Your task to perform on an android device: Clear the cart on costco. Search for "usb-a" on costco, select the first entry, and add it to the cart. Image 0: 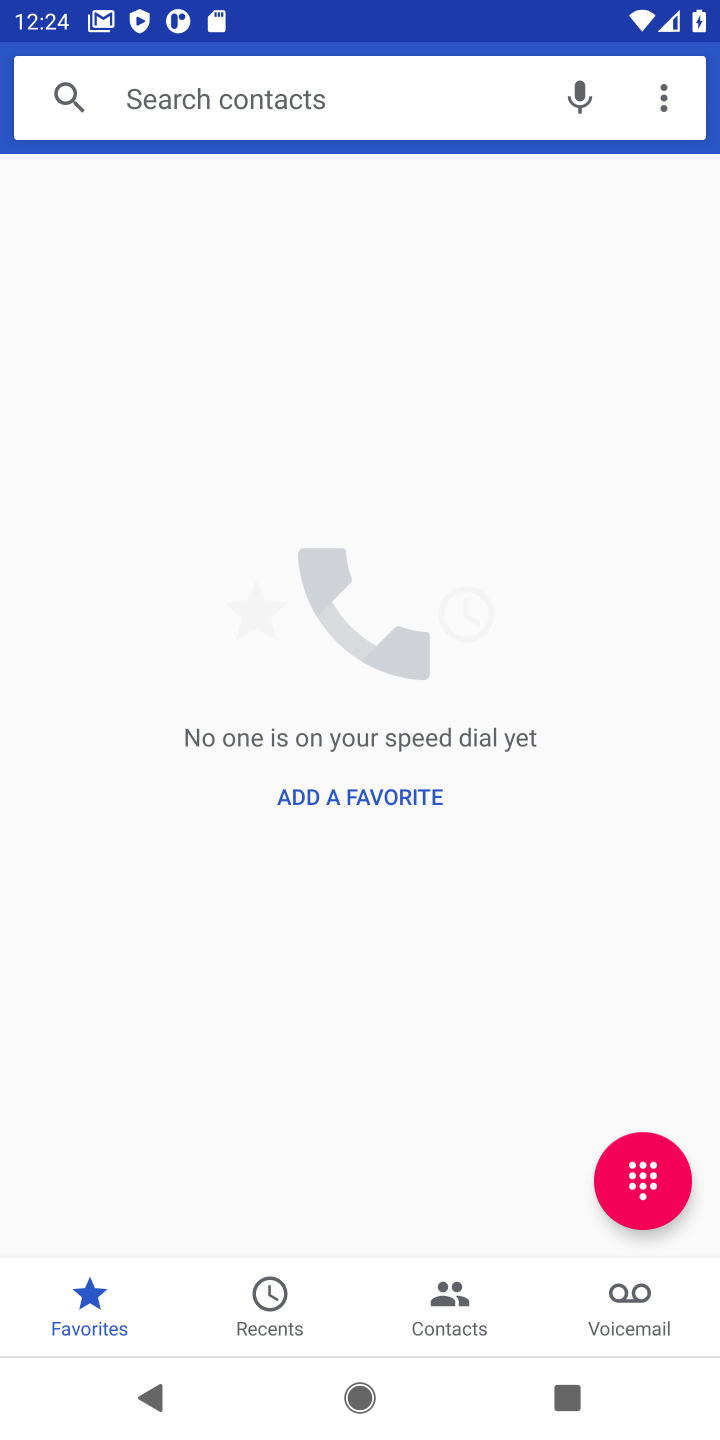
Step 0: press home button
Your task to perform on an android device: Clear the cart on costco. Search for "usb-a" on costco, select the first entry, and add it to the cart. Image 1: 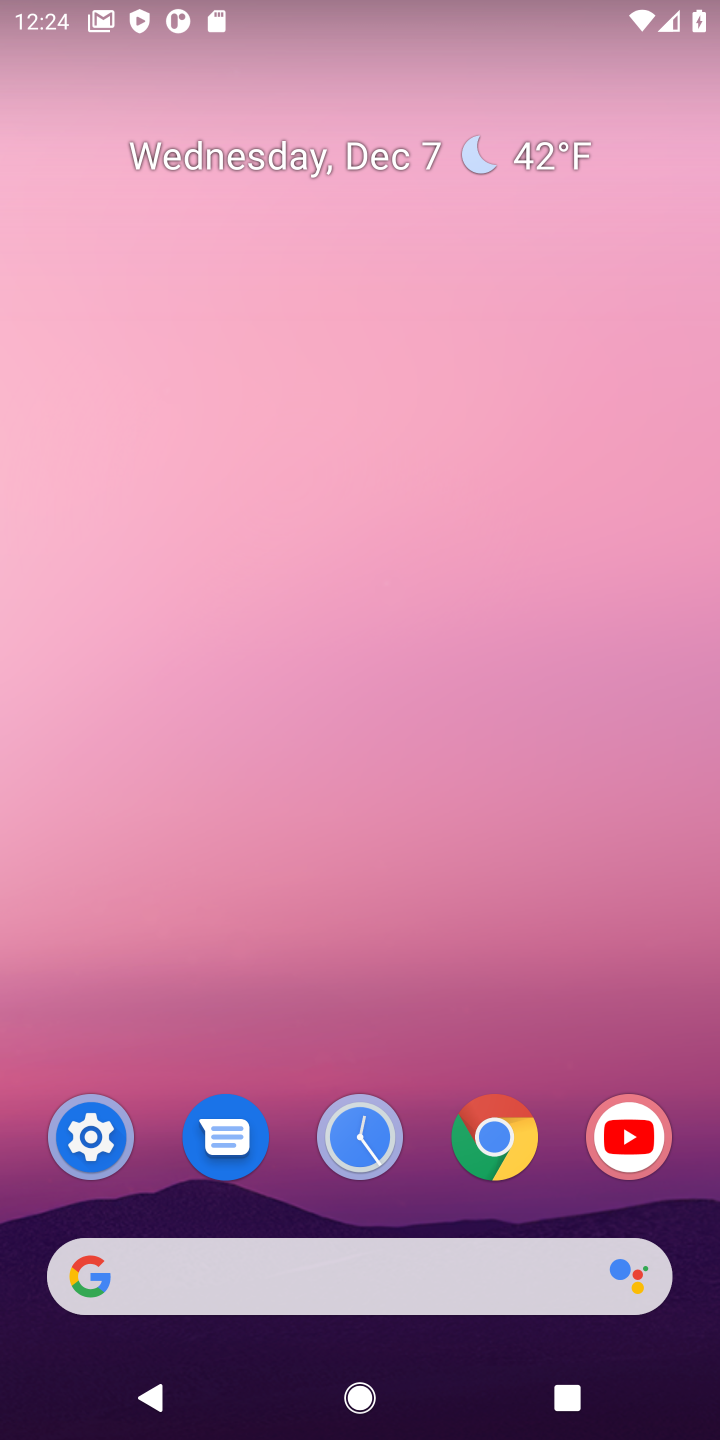
Step 1: drag from (263, 1001) to (439, 0)
Your task to perform on an android device: Clear the cart on costco. Search for "usb-a" on costco, select the first entry, and add it to the cart. Image 2: 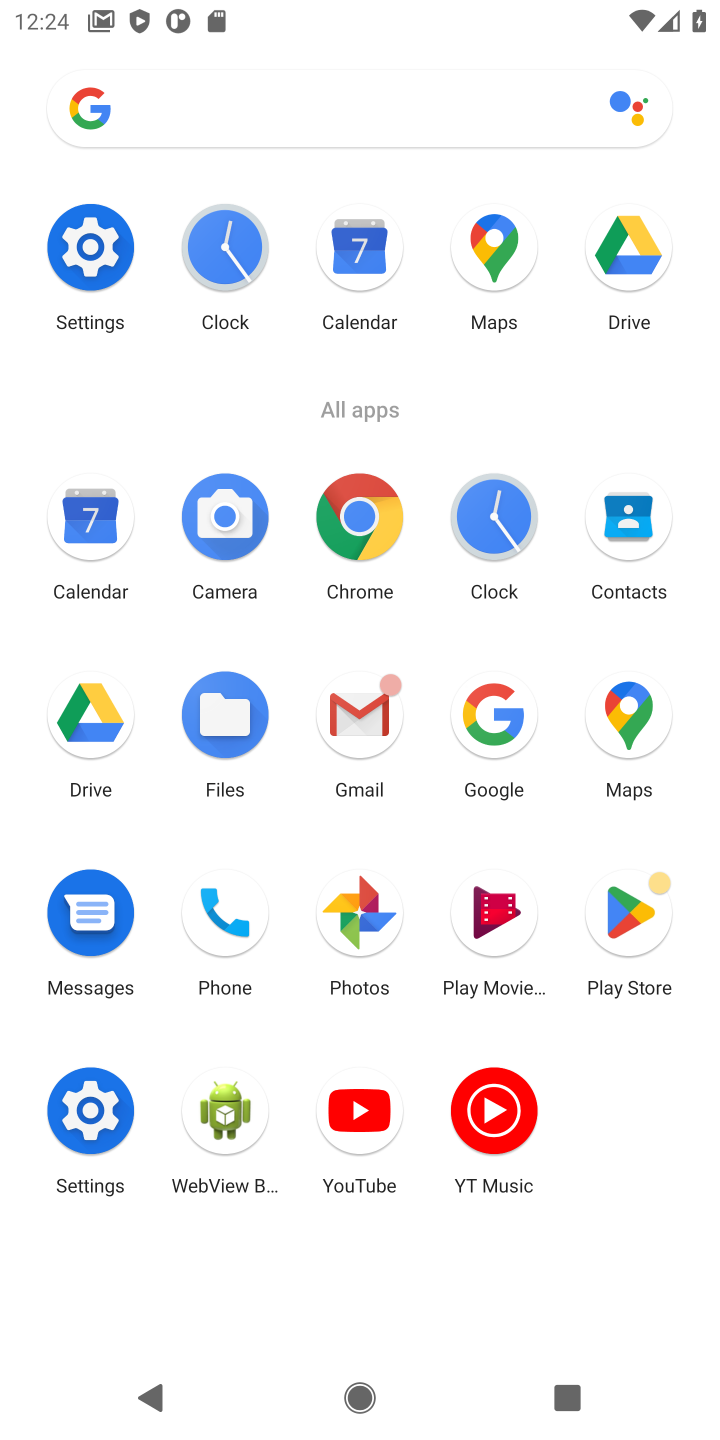
Step 2: click (485, 928)
Your task to perform on an android device: Clear the cart on costco. Search for "usb-a" on costco, select the first entry, and add it to the cart. Image 3: 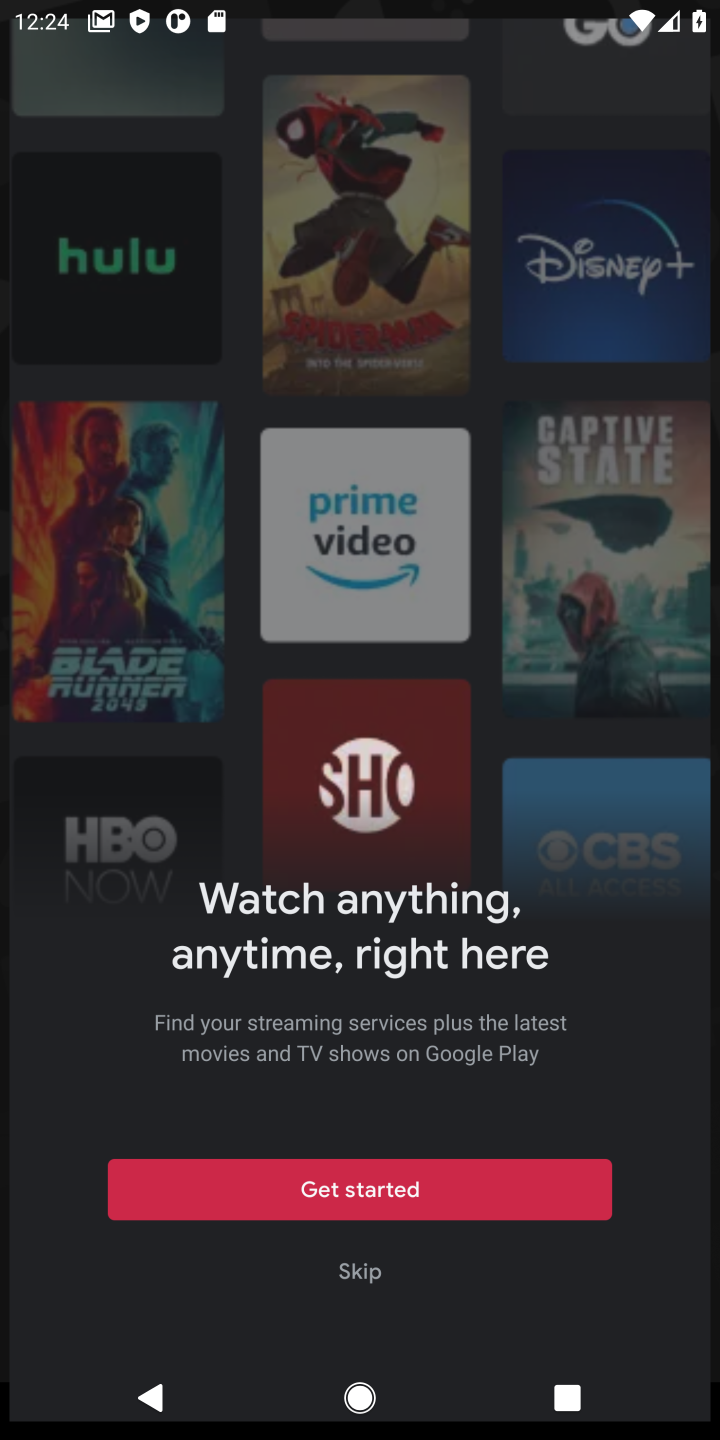
Step 3: press home button
Your task to perform on an android device: Clear the cart on costco. Search for "usb-a" on costco, select the first entry, and add it to the cart. Image 4: 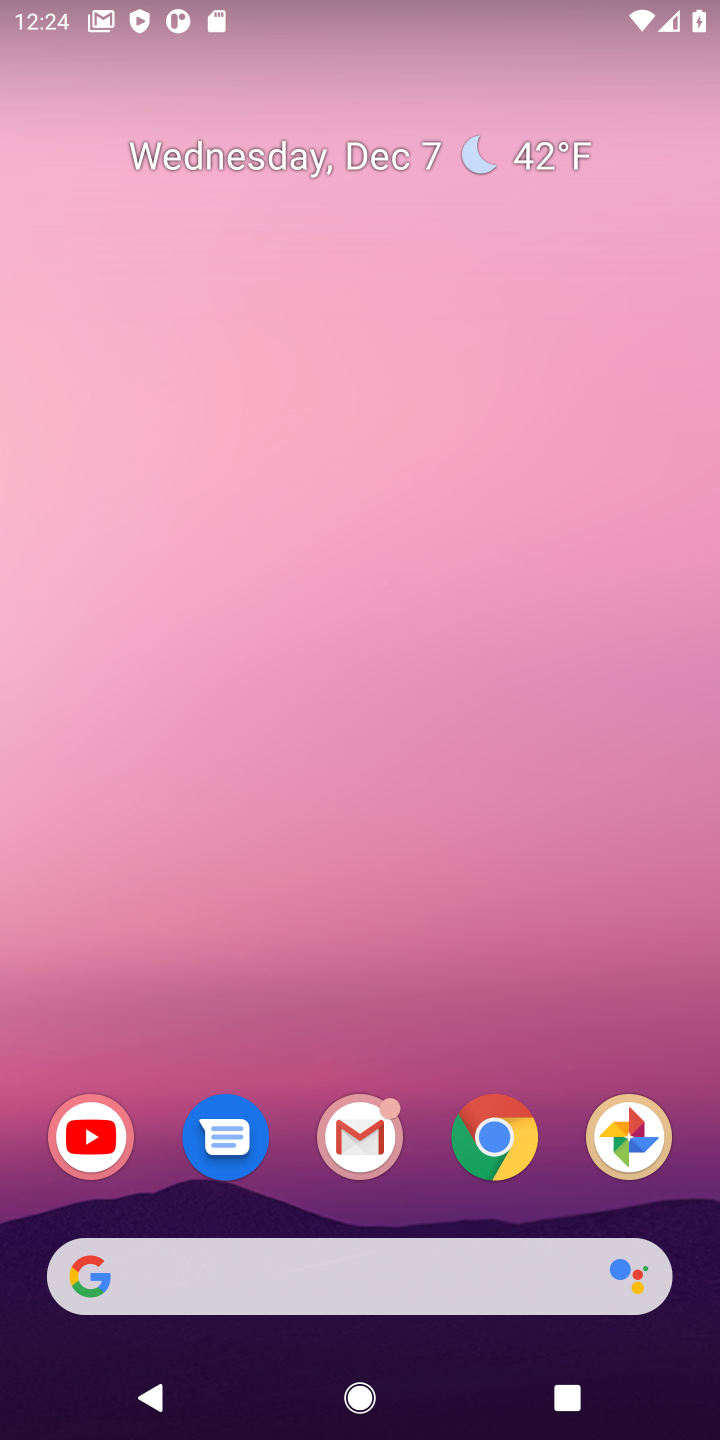
Step 4: drag from (384, 554) to (409, 270)
Your task to perform on an android device: Clear the cart on costco. Search for "usb-a" on costco, select the first entry, and add it to the cart. Image 5: 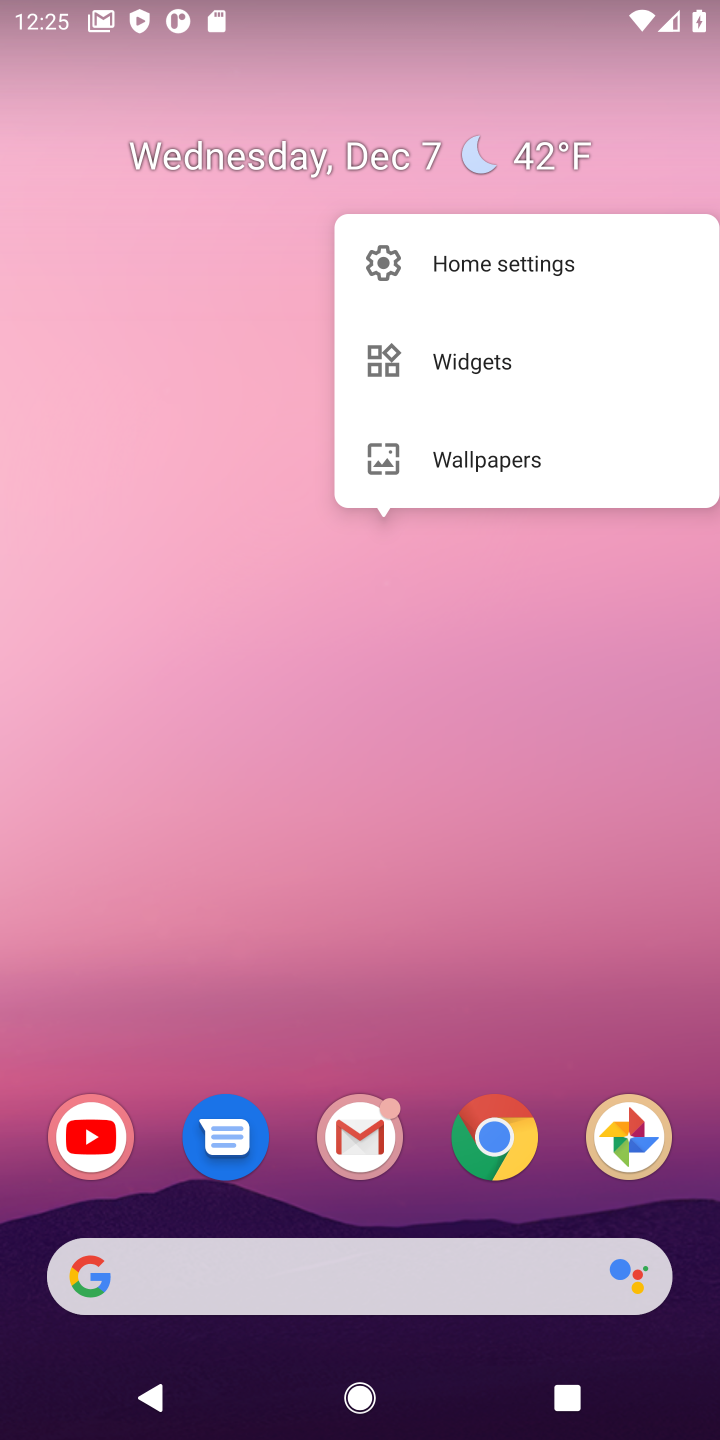
Step 5: drag from (386, 1200) to (363, 198)
Your task to perform on an android device: Clear the cart on costco. Search for "usb-a" on costco, select the first entry, and add it to the cart. Image 6: 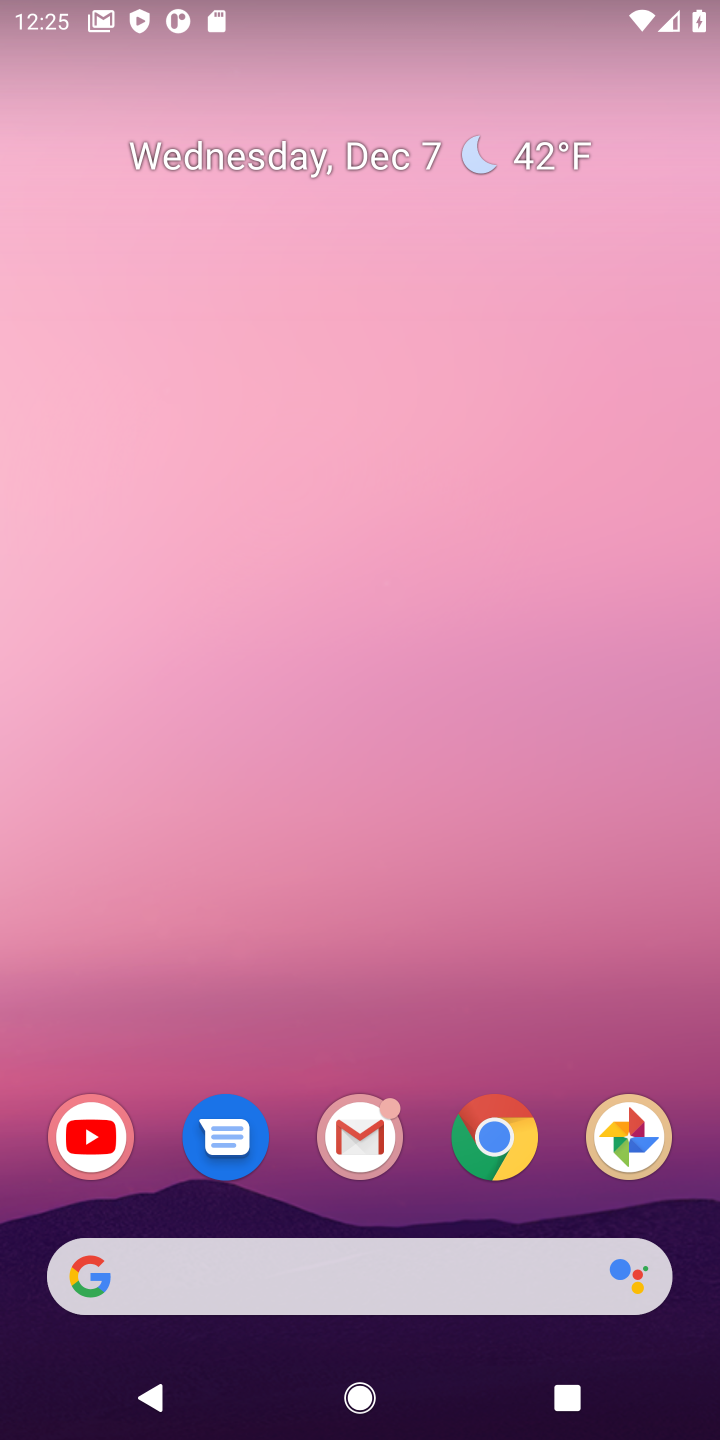
Step 6: click (310, 592)
Your task to perform on an android device: Clear the cart on costco. Search for "usb-a" on costco, select the first entry, and add it to the cart. Image 7: 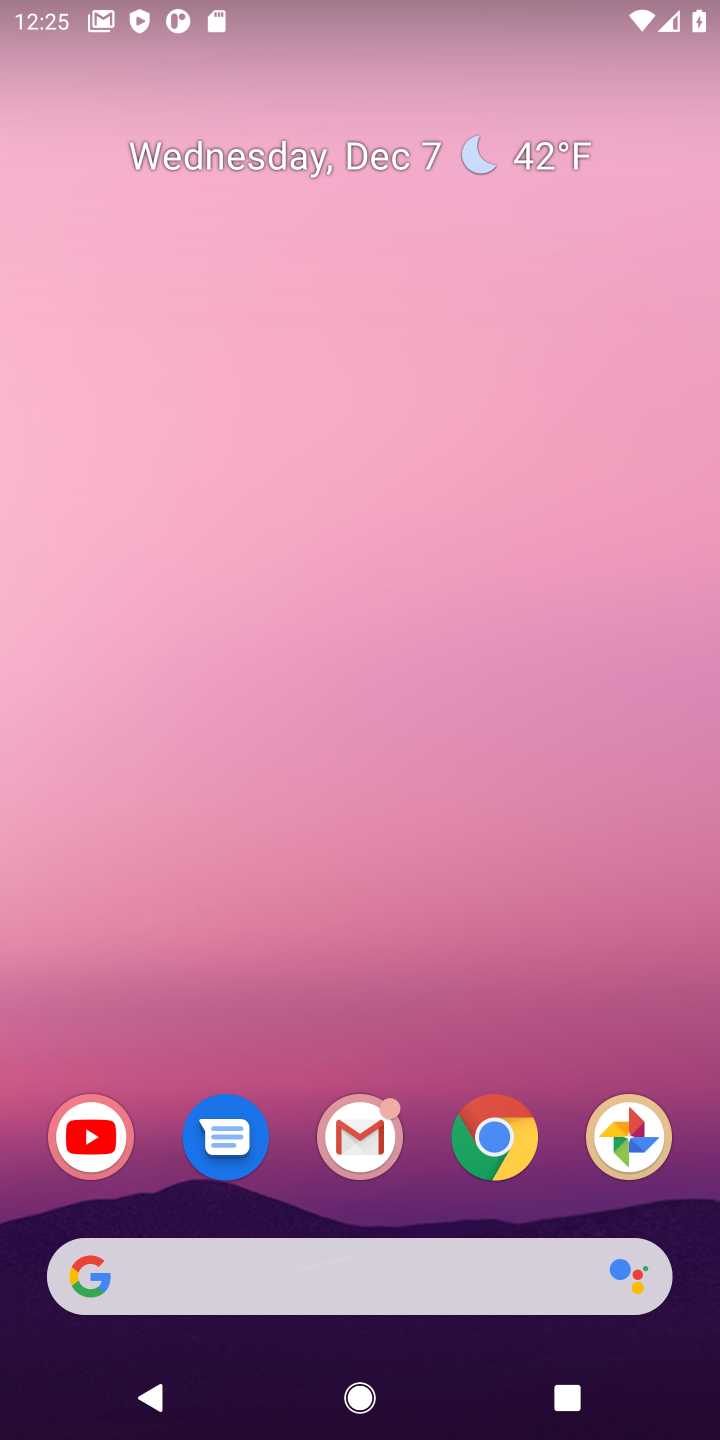
Step 7: drag from (293, 1114) to (365, 257)
Your task to perform on an android device: Clear the cart on costco. Search for "usb-a" on costco, select the first entry, and add it to the cart. Image 8: 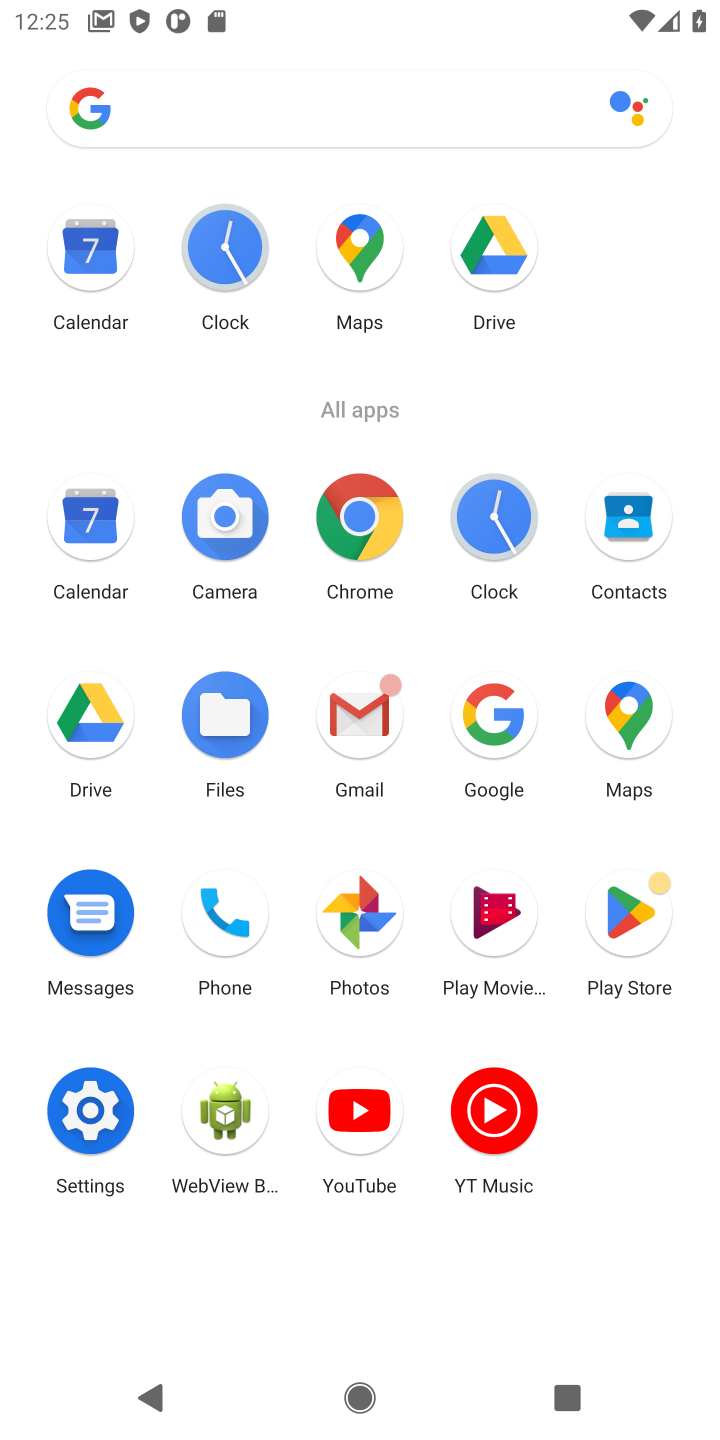
Step 8: click (475, 715)
Your task to perform on an android device: Clear the cart on costco. Search for "usb-a" on costco, select the first entry, and add it to the cart. Image 9: 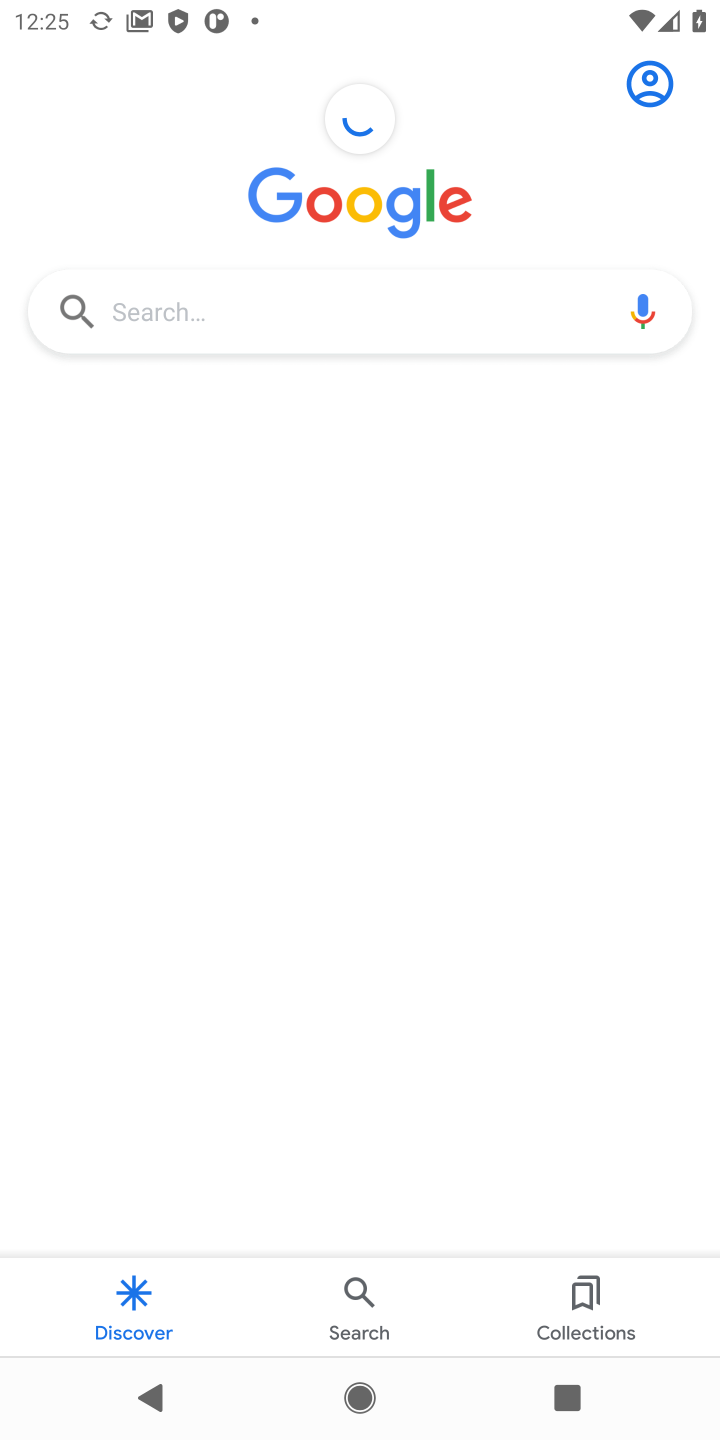
Step 9: click (198, 313)
Your task to perform on an android device: Clear the cart on costco. Search for "usb-a" on costco, select the first entry, and add it to the cart. Image 10: 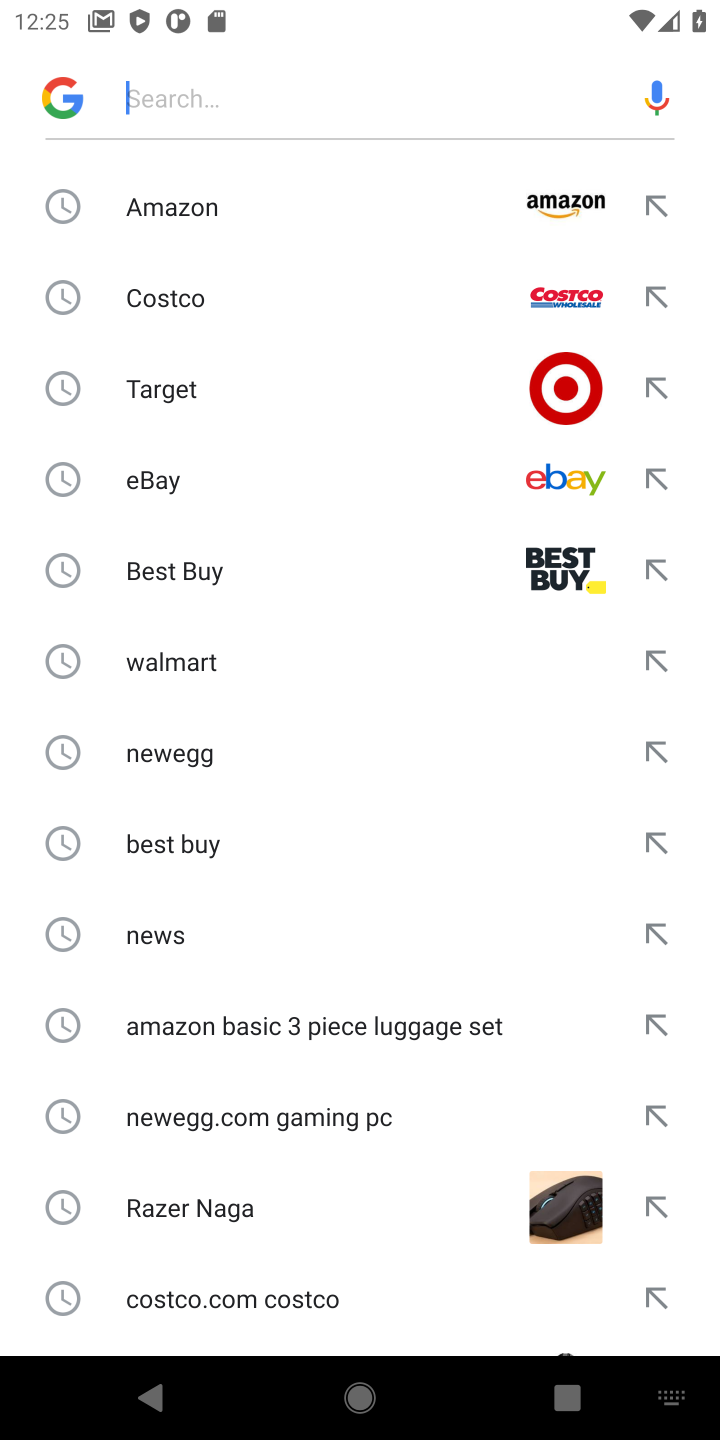
Step 10: type "costco"
Your task to perform on an android device: Clear the cart on costco. Search for "usb-a" on costco, select the first entry, and add it to the cart. Image 11: 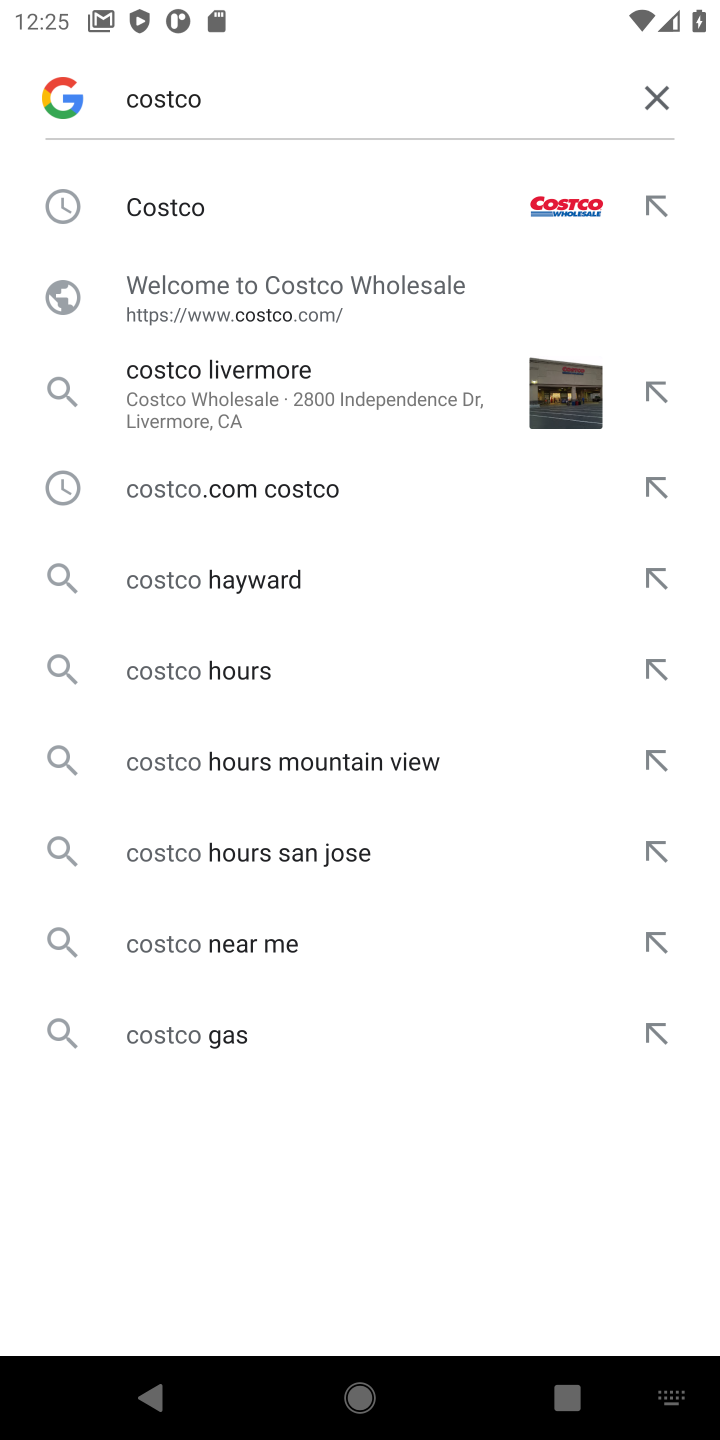
Step 11: click (555, 206)
Your task to perform on an android device: Clear the cart on costco. Search for "usb-a" on costco, select the first entry, and add it to the cart. Image 12: 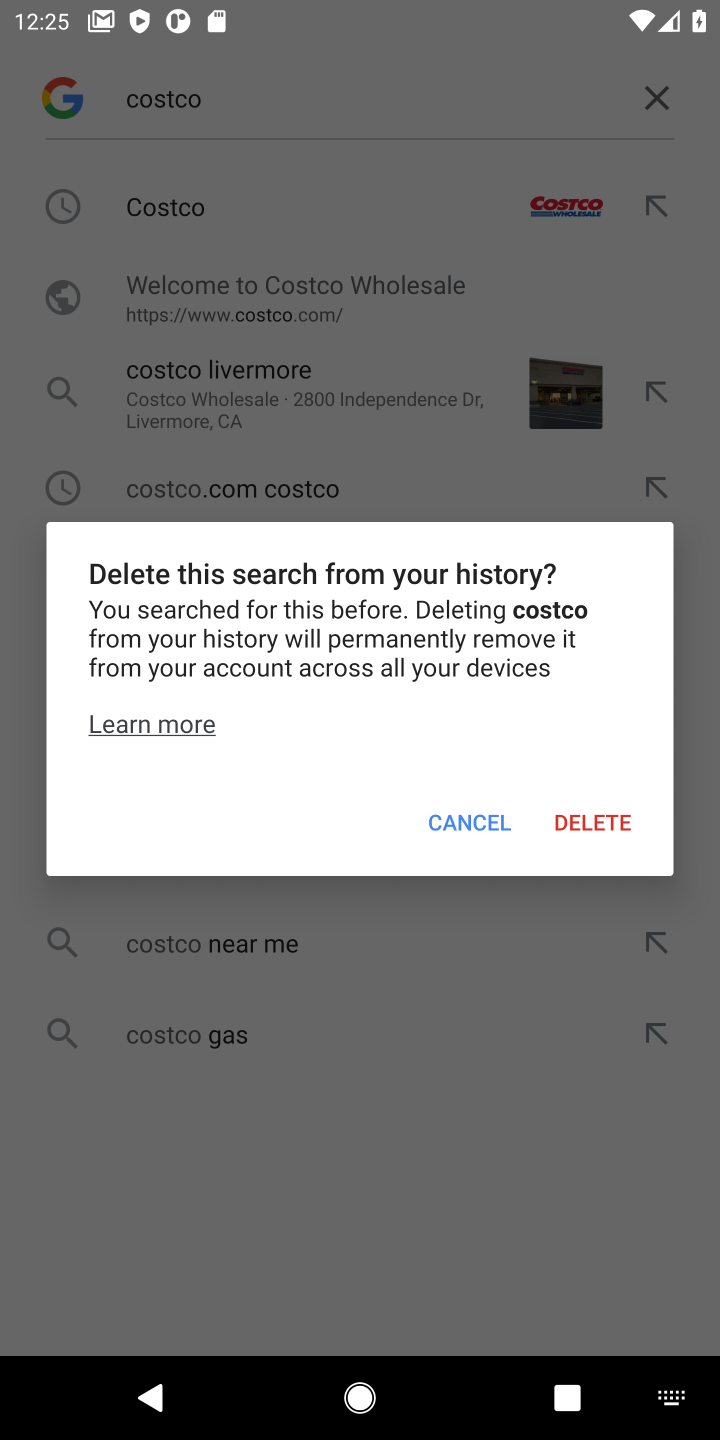
Step 12: click (459, 830)
Your task to perform on an android device: Clear the cart on costco. Search for "usb-a" on costco, select the first entry, and add it to the cart. Image 13: 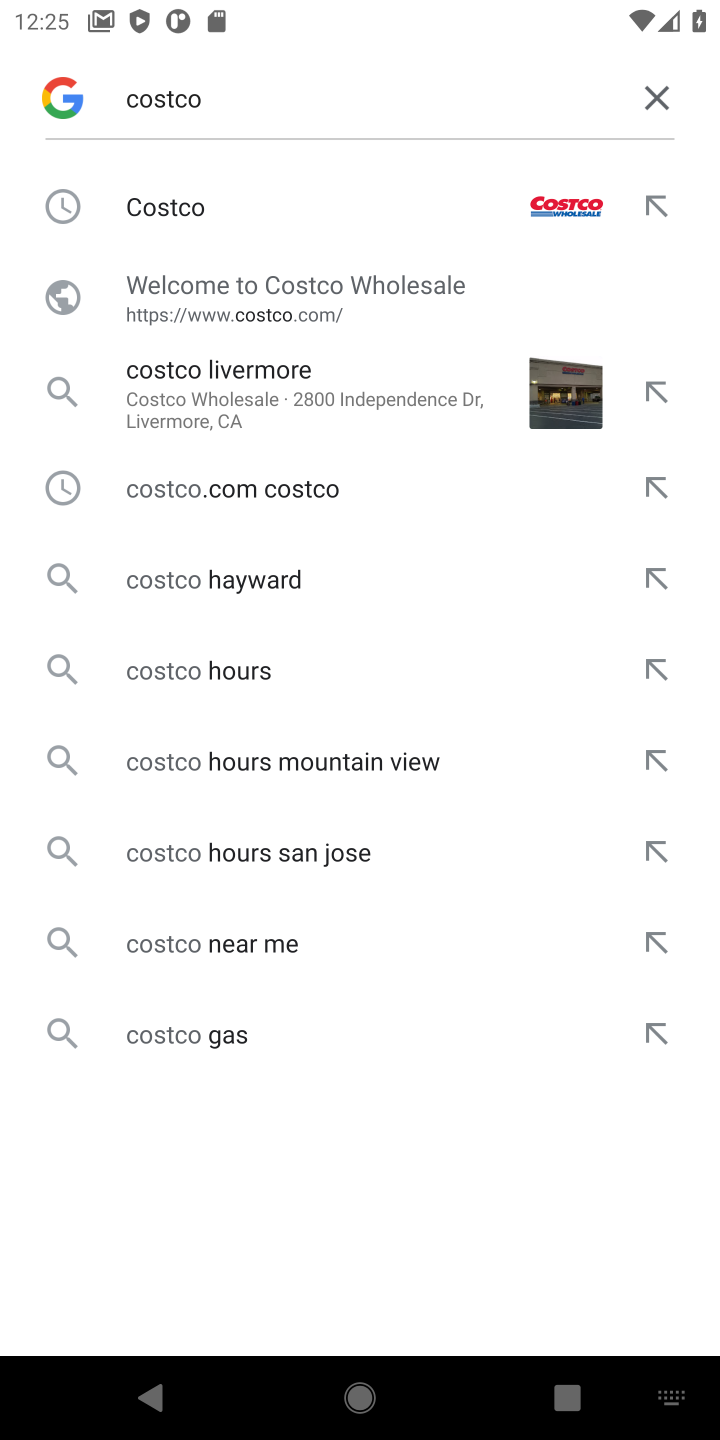
Step 13: click (539, 202)
Your task to perform on an android device: Clear the cart on costco. Search for "usb-a" on costco, select the first entry, and add it to the cart. Image 14: 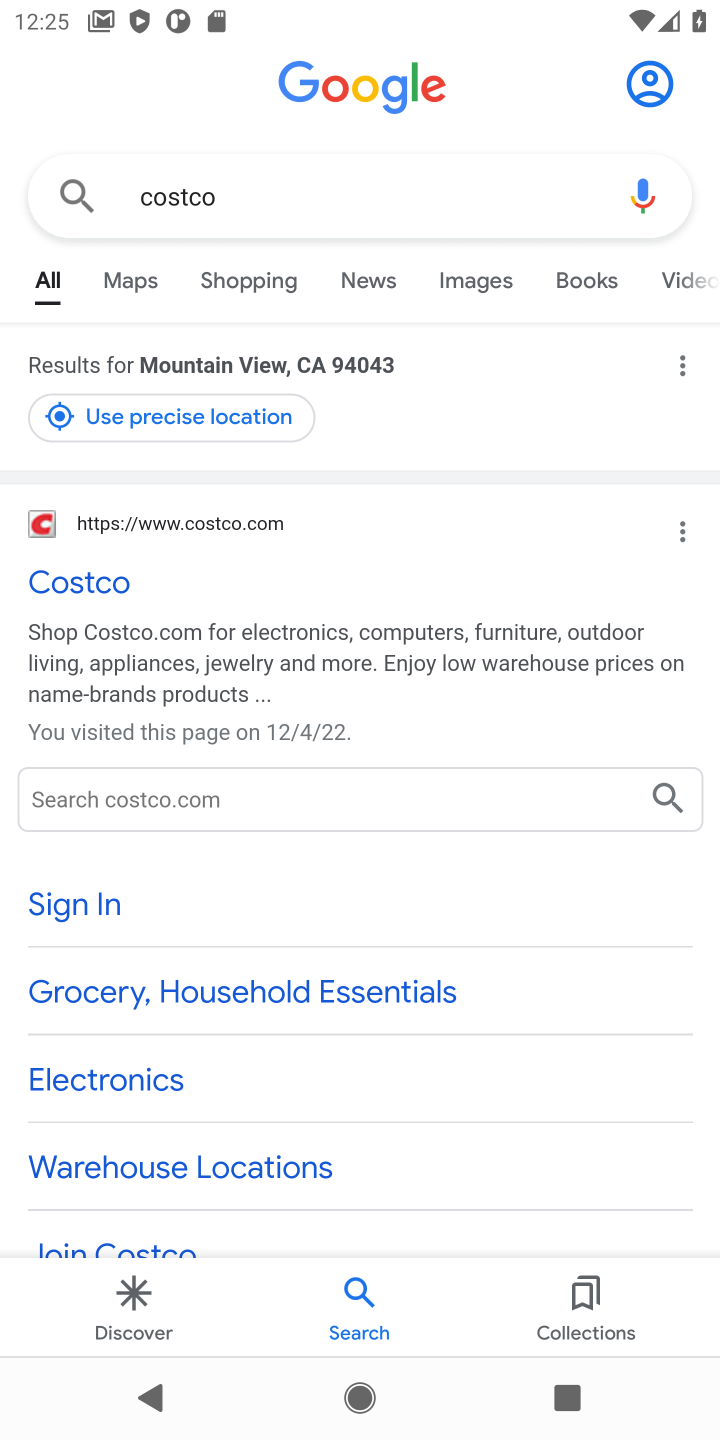
Step 14: click (60, 583)
Your task to perform on an android device: Clear the cart on costco. Search for "usb-a" on costco, select the first entry, and add it to the cart. Image 15: 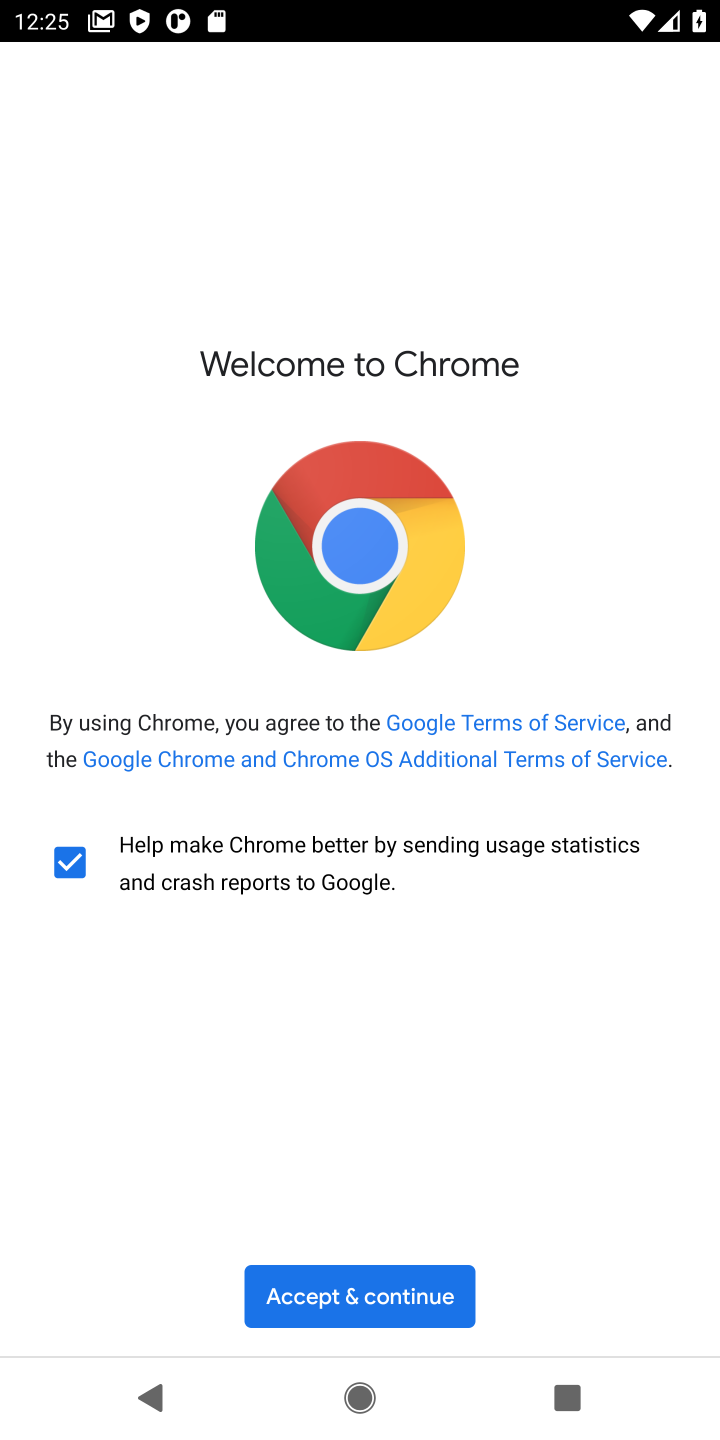
Step 15: click (390, 1314)
Your task to perform on an android device: Clear the cart on costco. Search for "usb-a" on costco, select the first entry, and add it to the cart. Image 16: 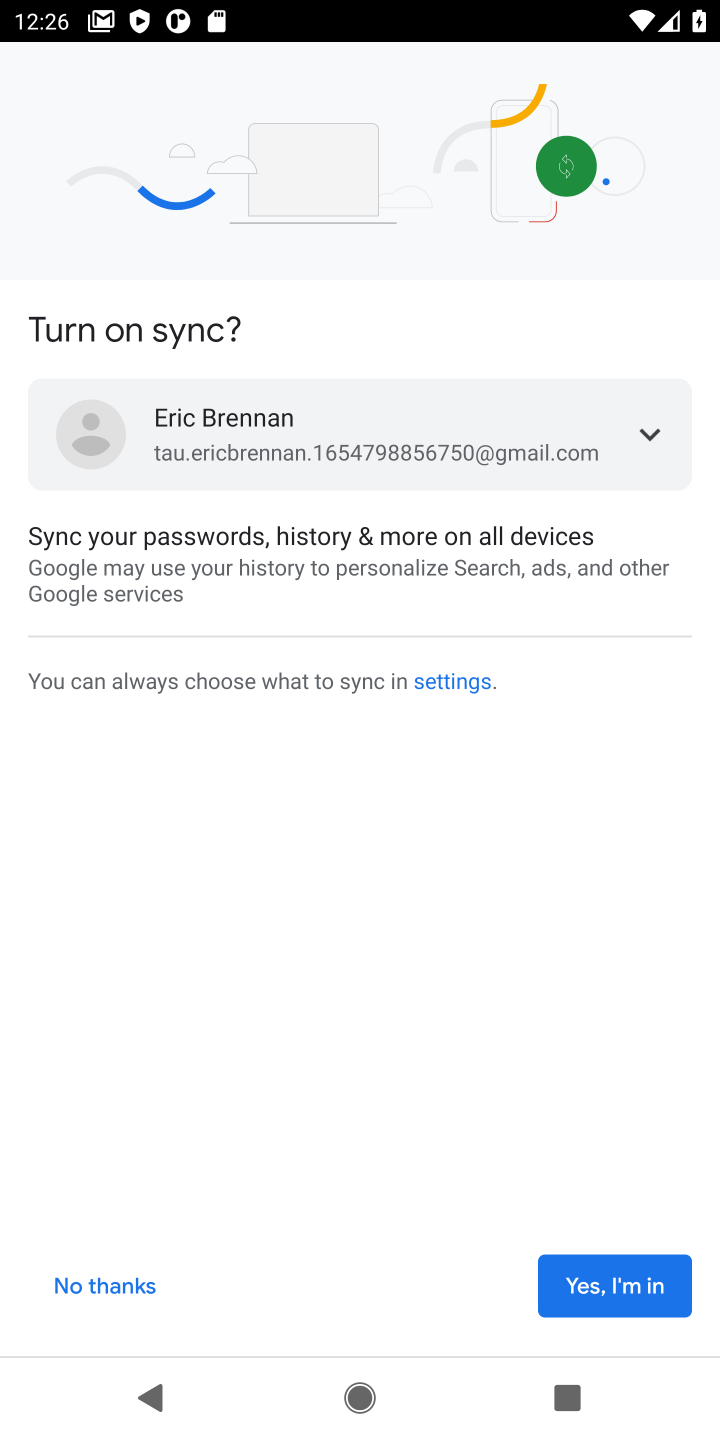
Step 16: click (627, 1308)
Your task to perform on an android device: Clear the cart on costco. Search for "usb-a" on costco, select the first entry, and add it to the cart. Image 17: 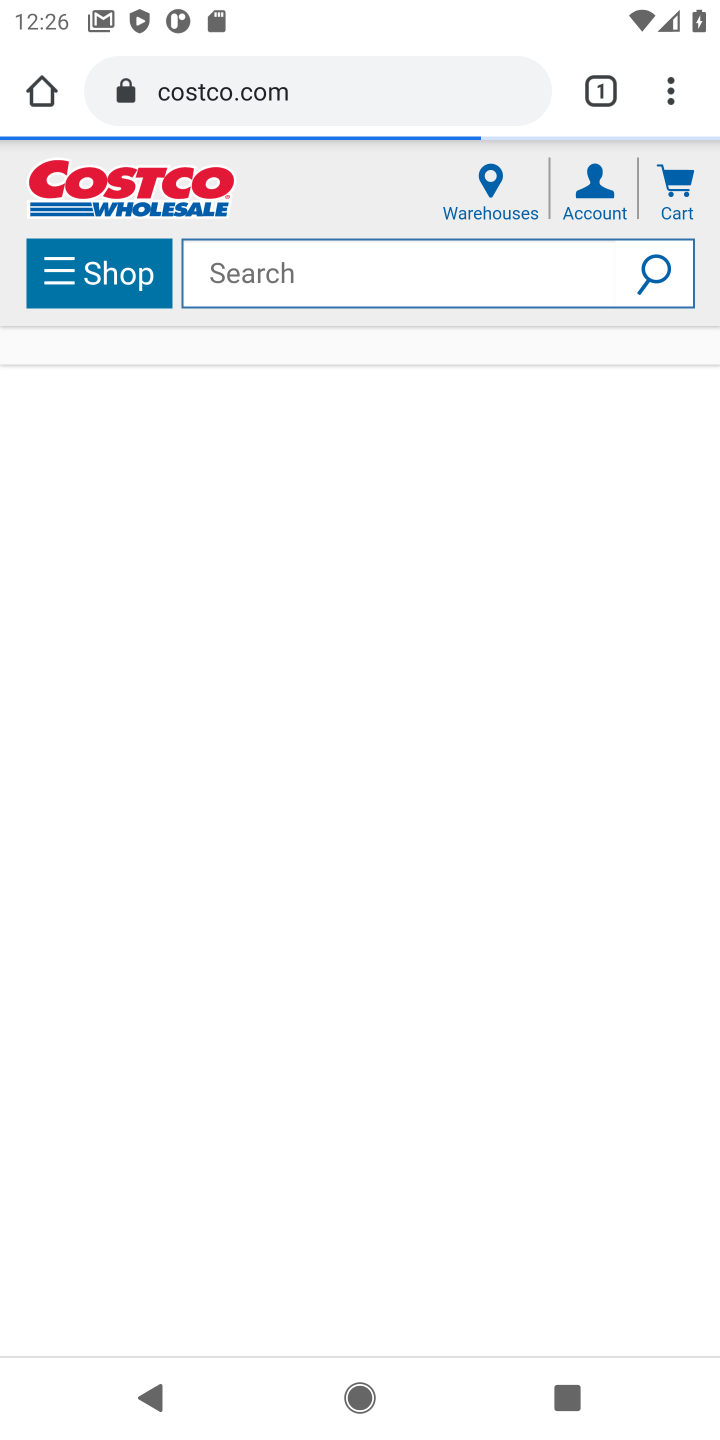
Step 17: click (218, 271)
Your task to perform on an android device: Clear the cart on costco. Search for "usb-a" on costco, select the first entry, and add it to the cart. Image 18: 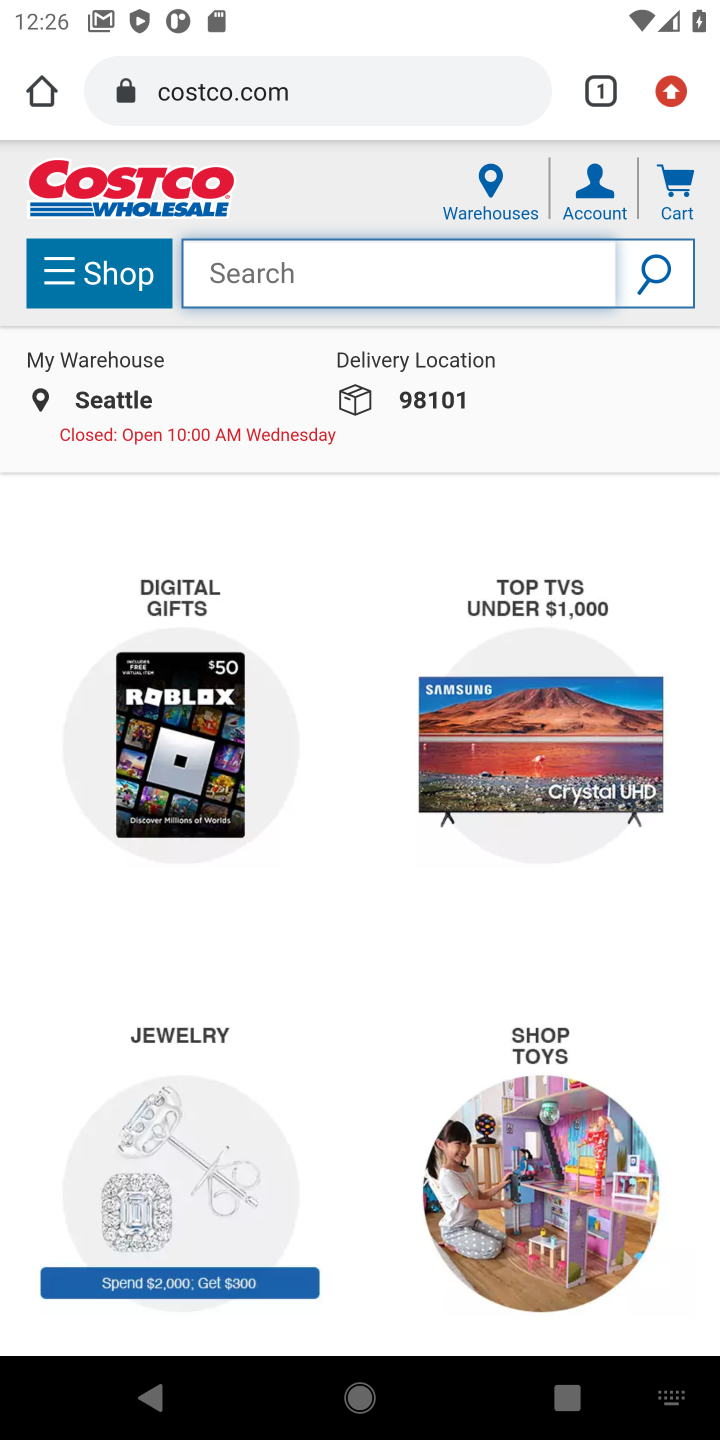
Step 18: click (224, 269)
Your task to perform on an android device: Clear the cart on costco. Search for "usb-a" on costco, select the first entry, and add it to the cart. Image 19: 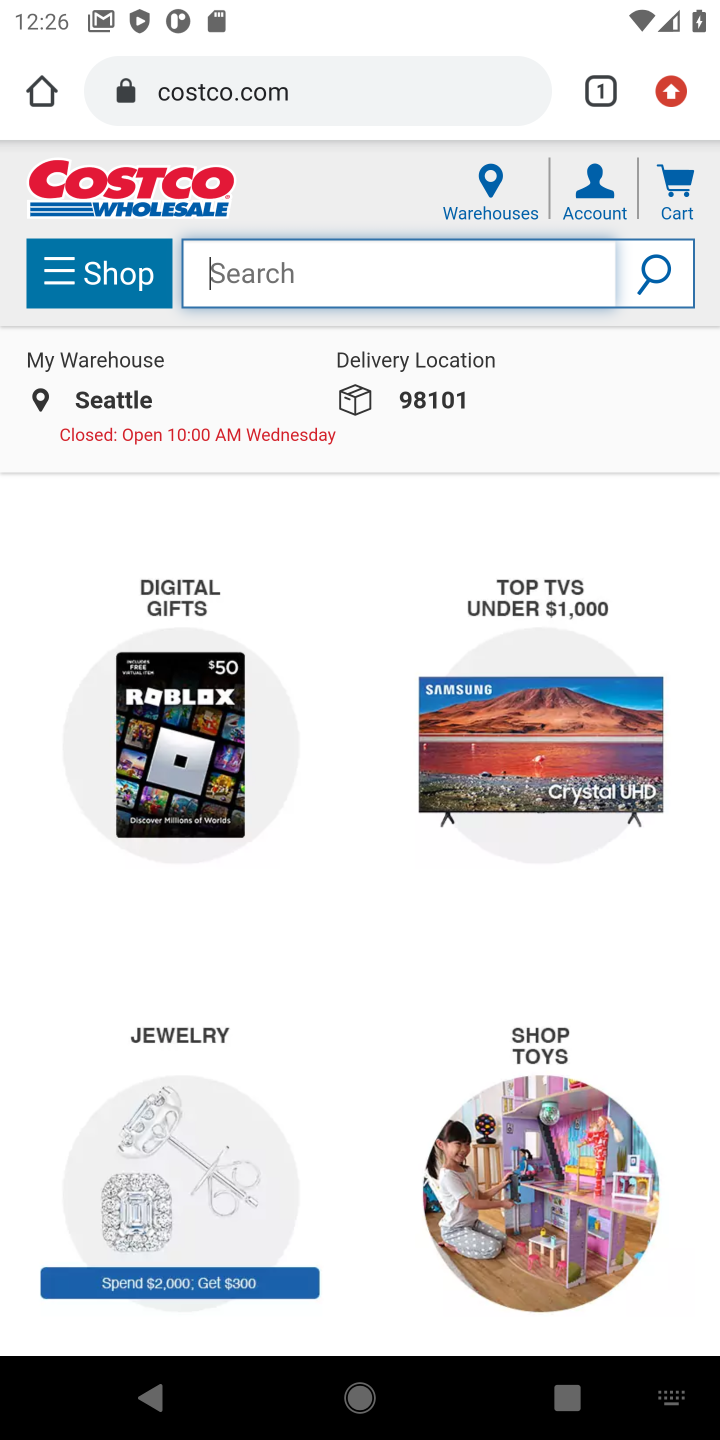
Step 19: type "usb-a"
Your task to perform on an android device: Clear the cart on costco. Search for "usb-a" on costco, select the first entry, and add it to the cart. Image 20: 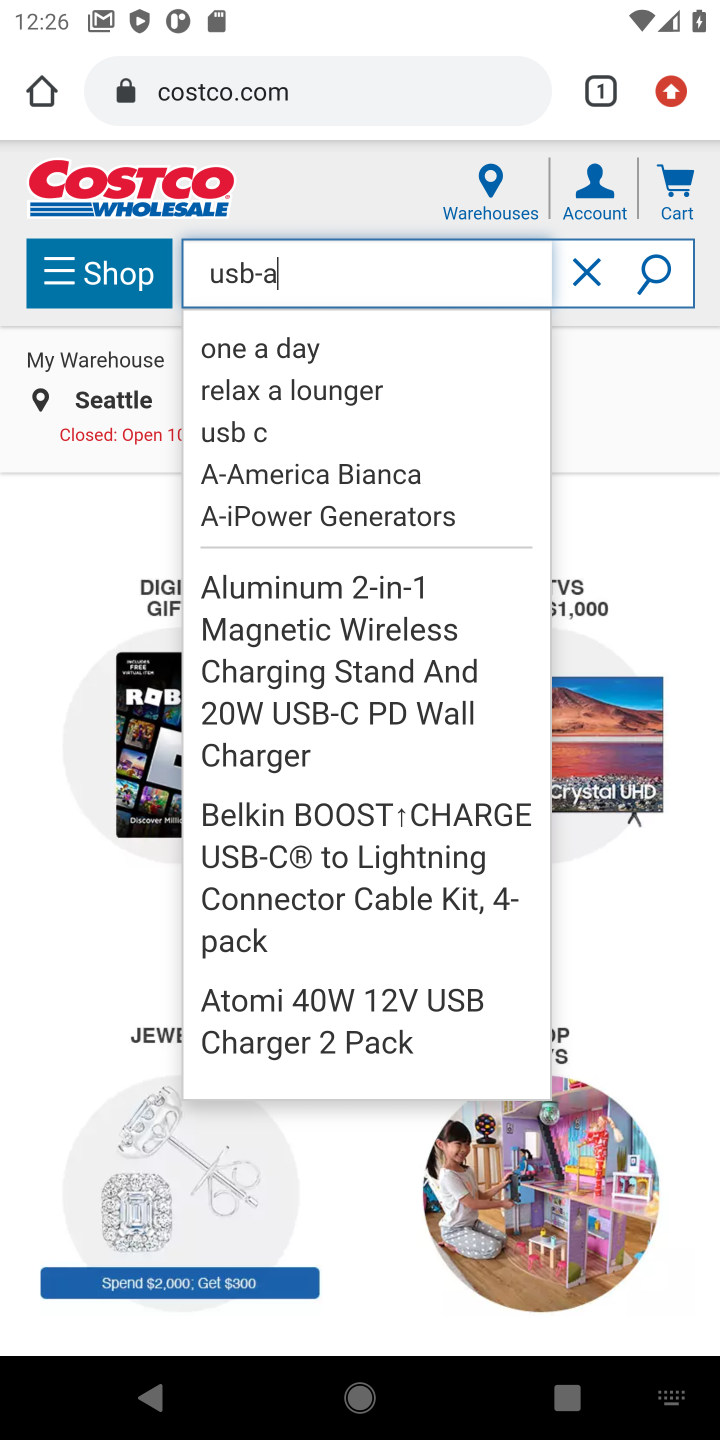
Step 20: click (45, 551)
Your task to perform on an android device: Clear the cart on costco. Search for "usb-a" on costco, select the first entry, and add it to the cart. Image 21: 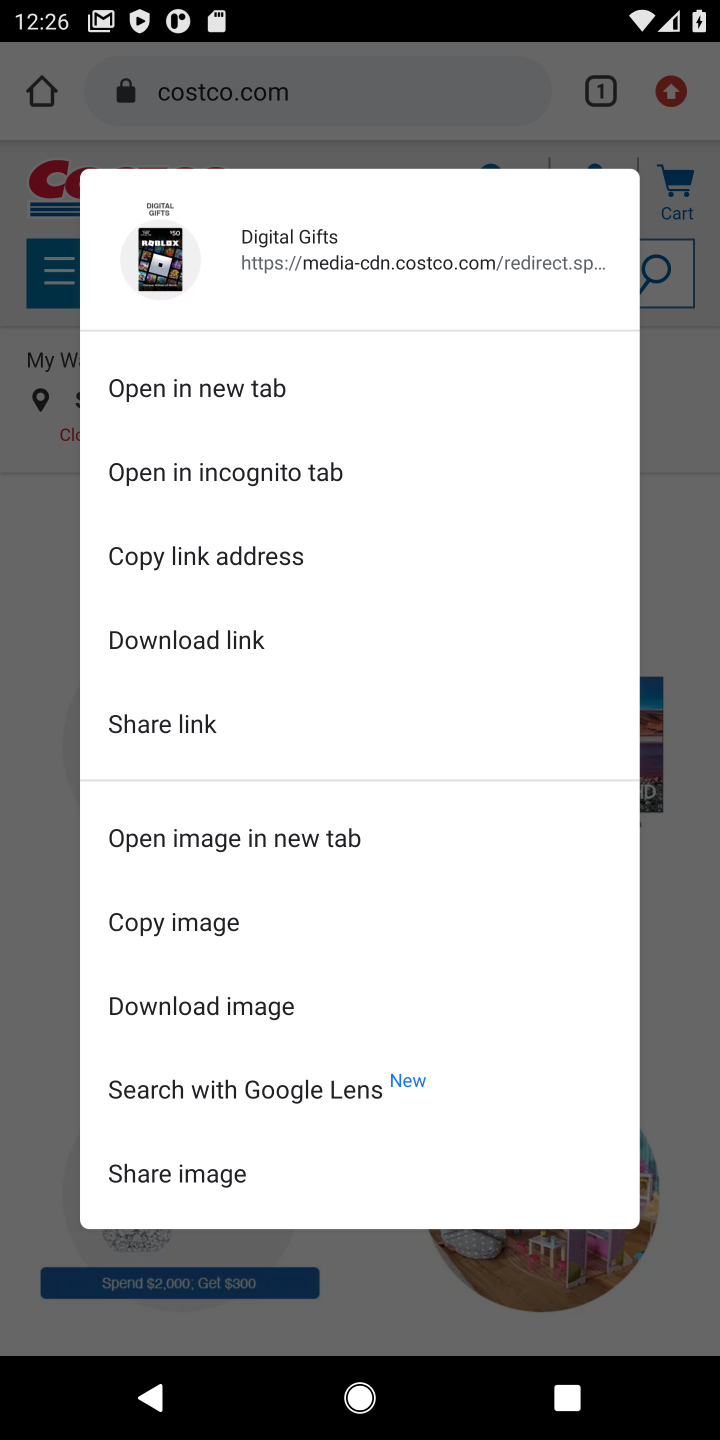
Step 21: click (6, 513)
Your task to perform on an android device: Clear the cart on costco. Search for "usb-a" on costco, select the first entry, and add it to the cart. Image 22: 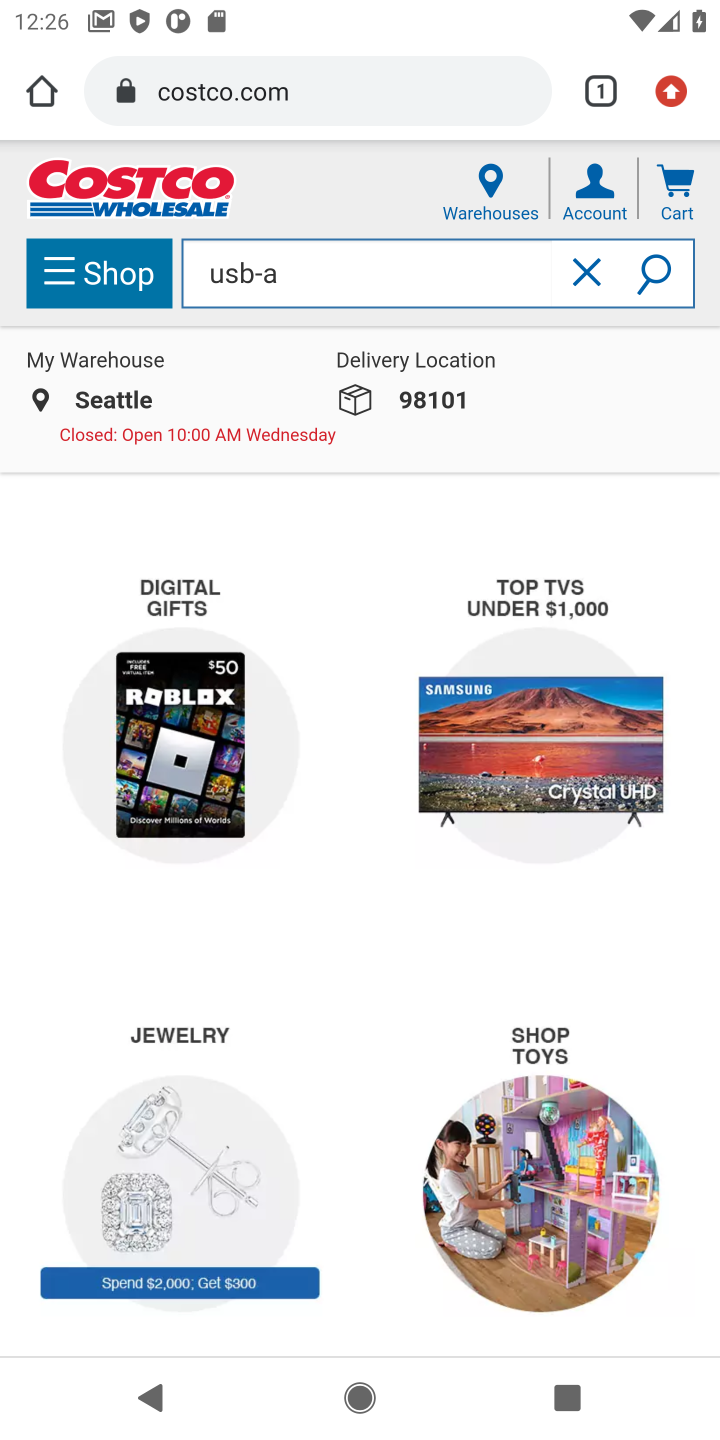
Step 22: click (660, 271)
Your task to perform on an android device: Clear the cart on costco. Search for "usb-a" on costco, select the first entry, and add it to the cart. Image 23: 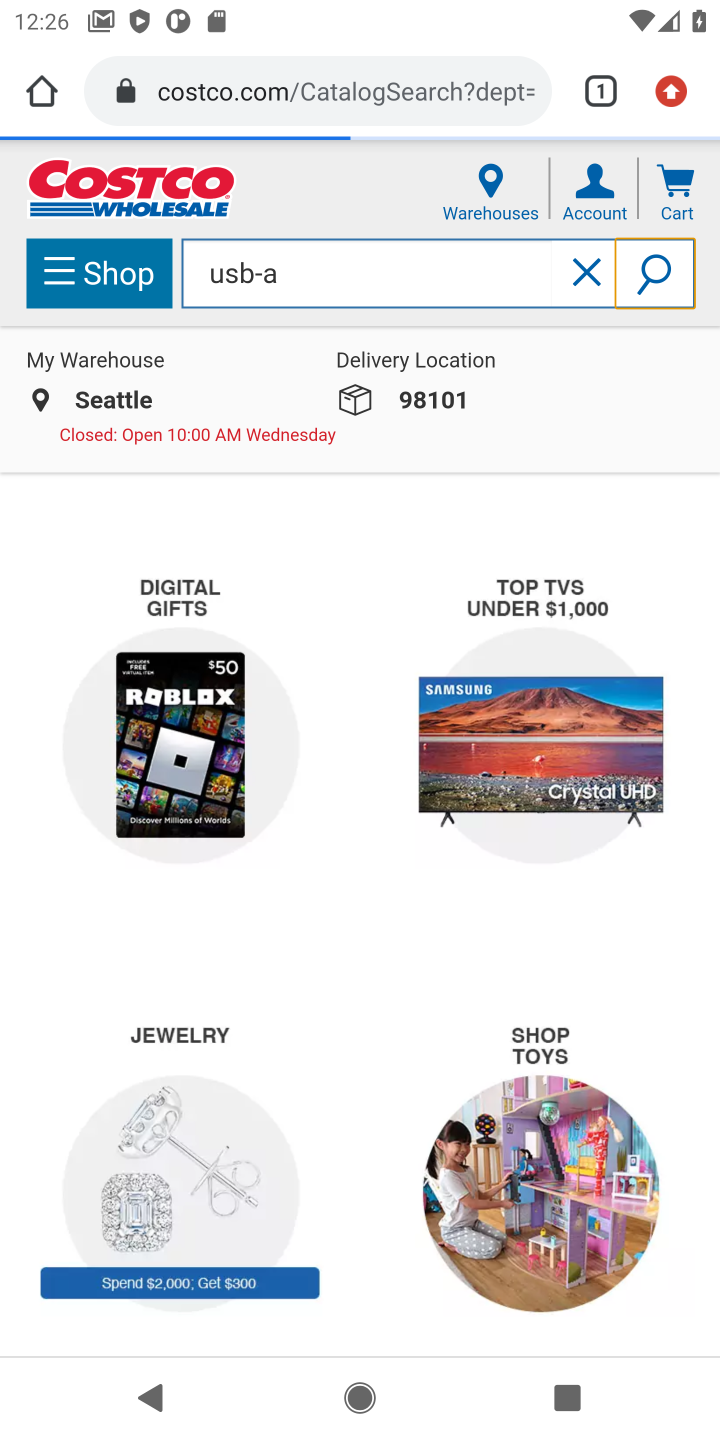
Step 23: click (649, 284)
Your task to perform on an android device: Clear the cart on costco. Search for "usb-a" on costco, select the first entry, and add it to the cart. Image 24: 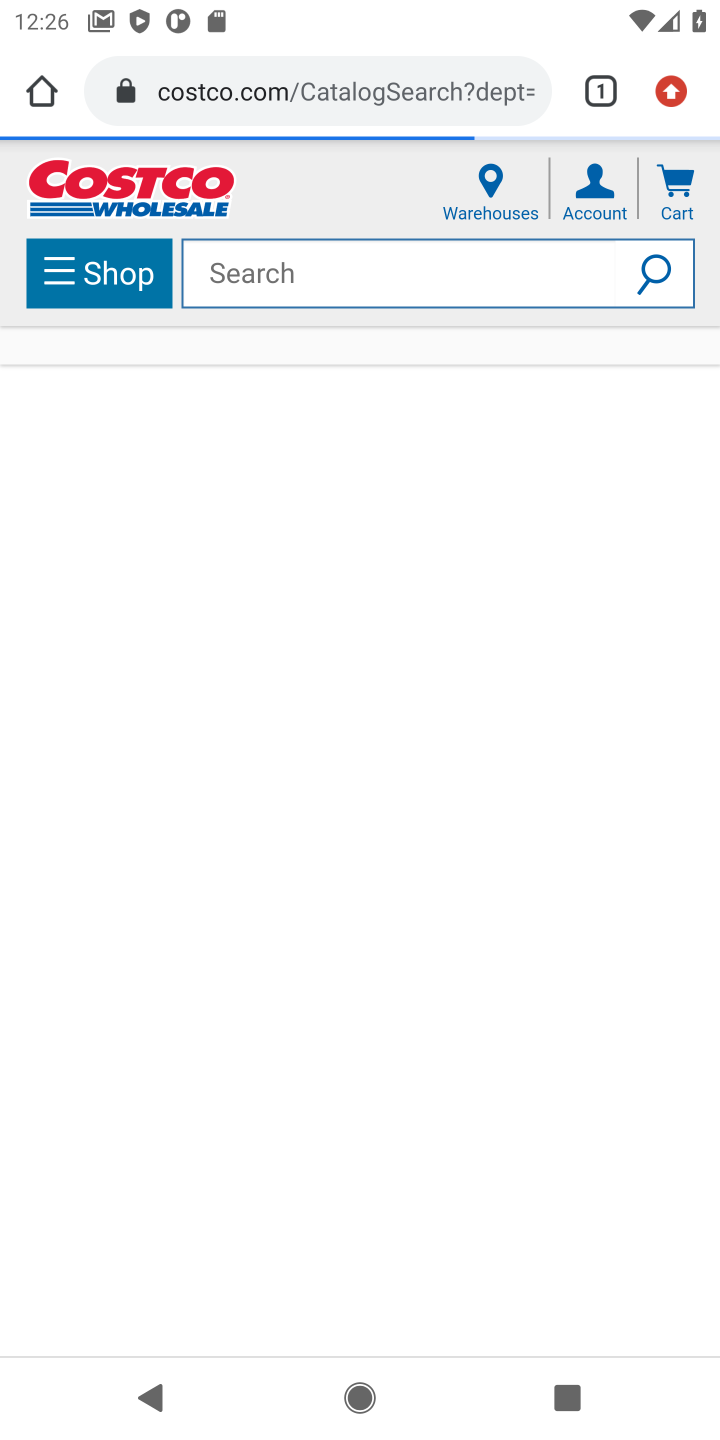
Step 24: drag from (207, 1283) to (299, 679)
Your task to perform on an android device: Clear the cart on costco. Search for "usb-a" on costco, select the first entry, and add it to the cart. Image 25: 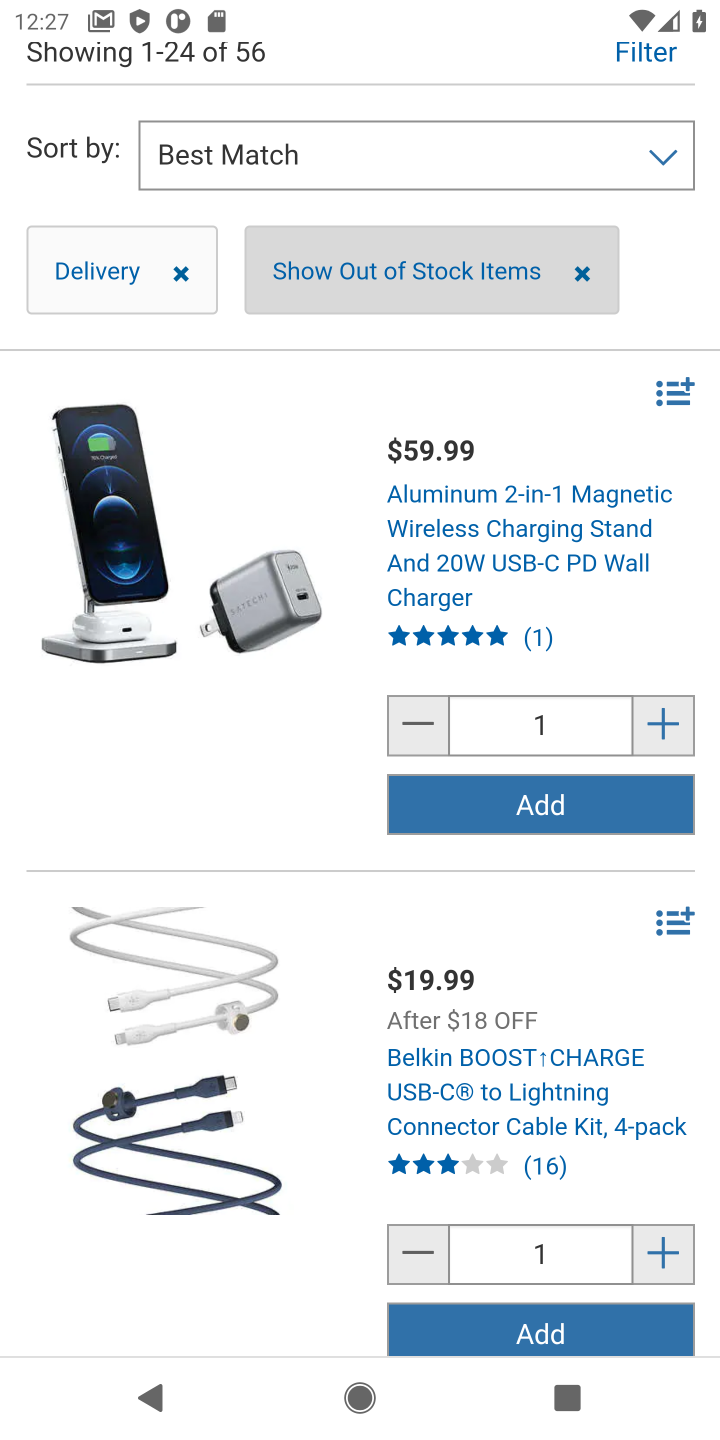
Step 25: click (538, 797)
Your task to perform on an android device: Clear the cart on costco. Search for "usb-a" on costco, select the first entry, and add it to the cart. Image 26: 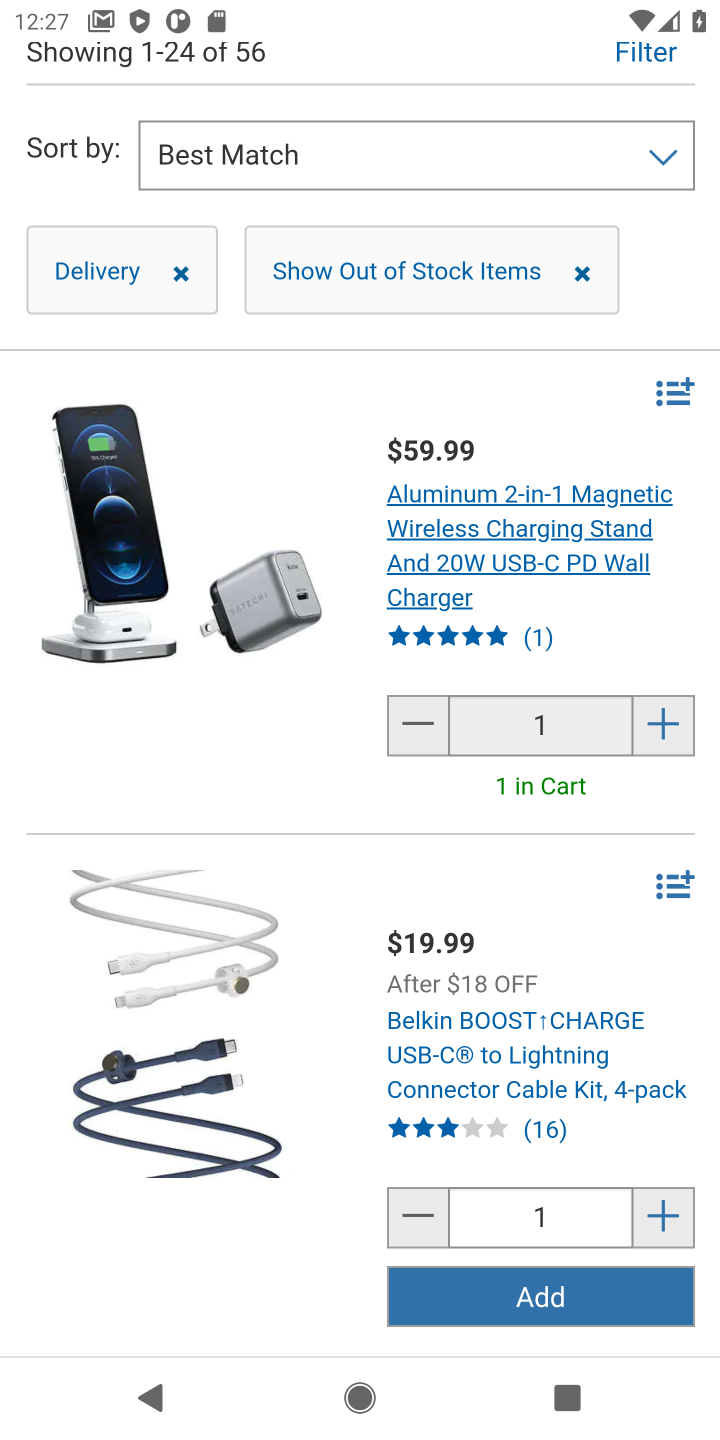
Step 26: drag from (281, 419) to (322, 1094)
Your task to perform on an android device: Clear the cart on costco. Search for "usb-a" on costco, select the first entry, and add it to the cart. Image 27: 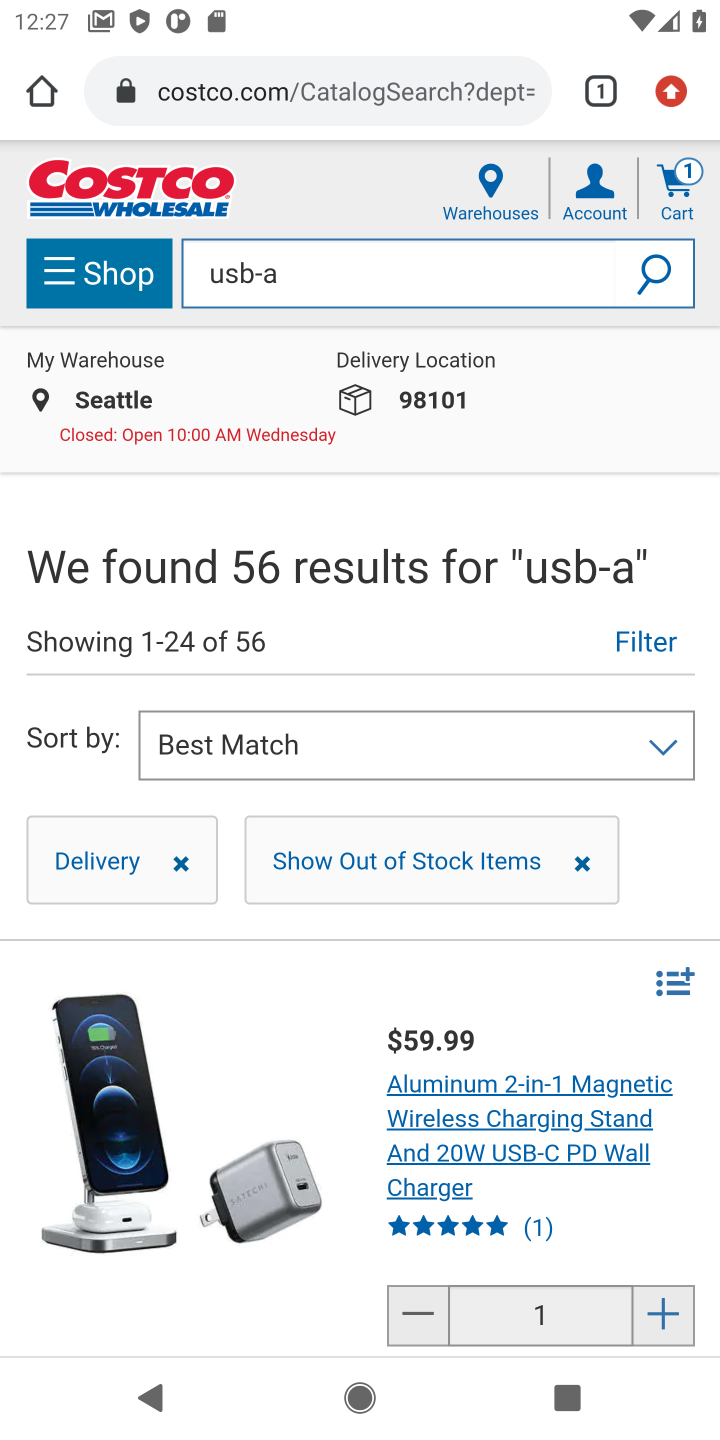
Step 27: click (685, 169)
Your task to perform on an android device: Clear the cart on costco. Search for "usb-a" on costco, select the first entry, and add it to the cart. Image 28: 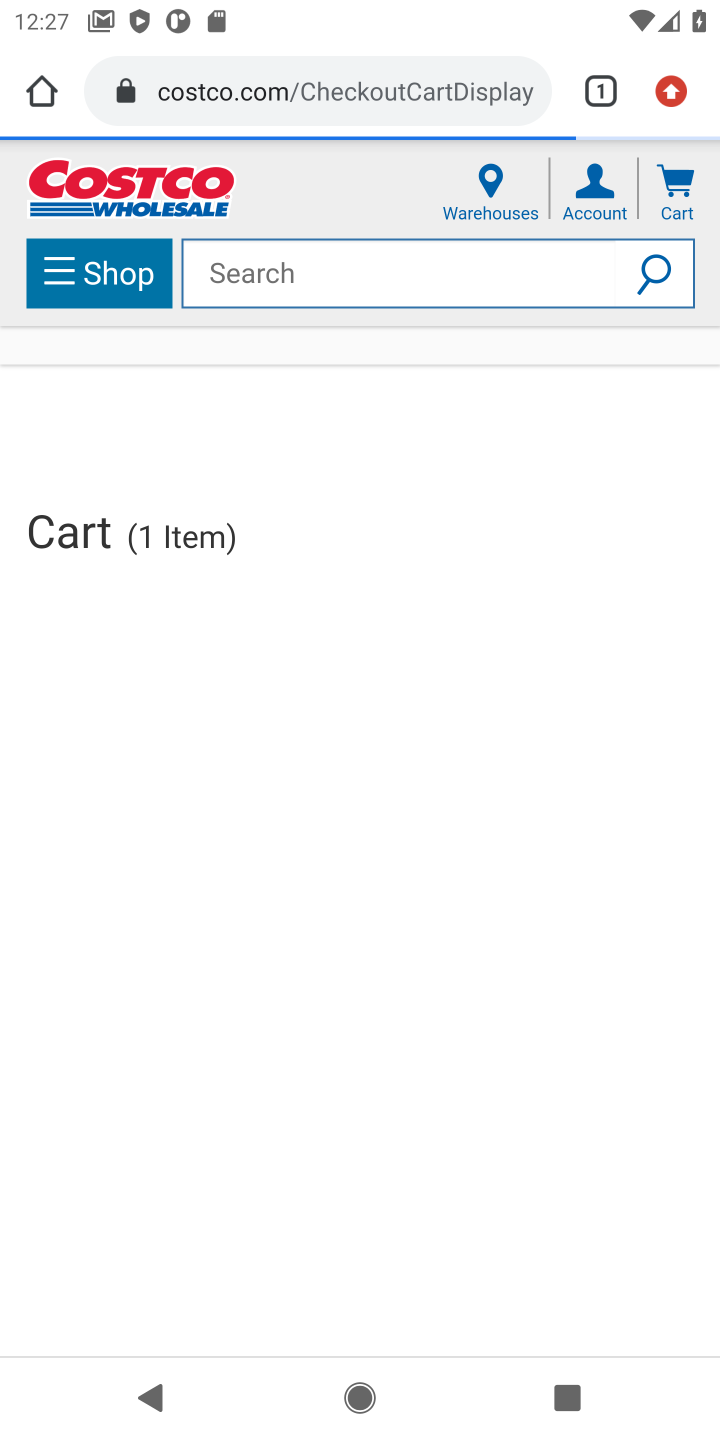
Step 28: click (681, 204)
Your task to perform on an android device: Clear the cart on costco. Search for "usb-a" on costco, select the first entry, and add it to the cart. Image 29: 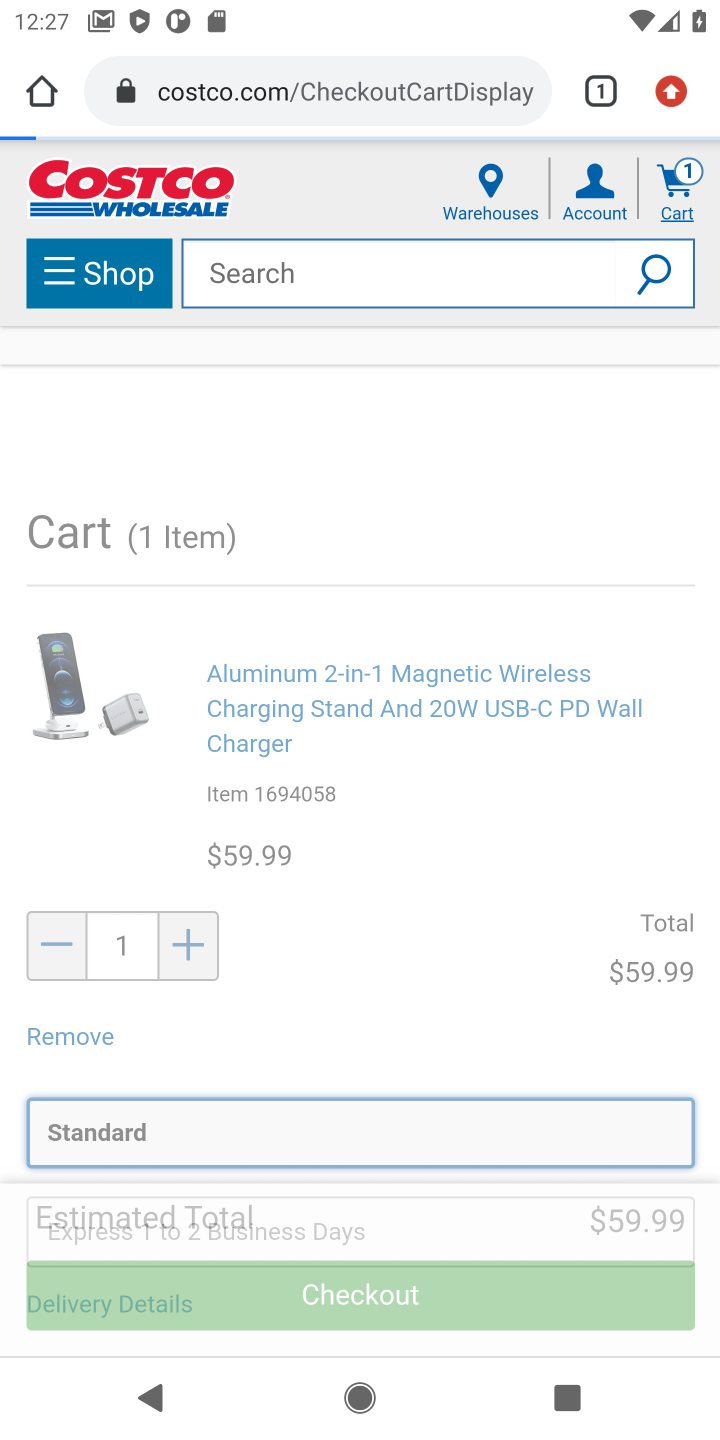
Step 29: task complete